Your task to perform on an android device: turn pop-ups on in chrome Image 0: 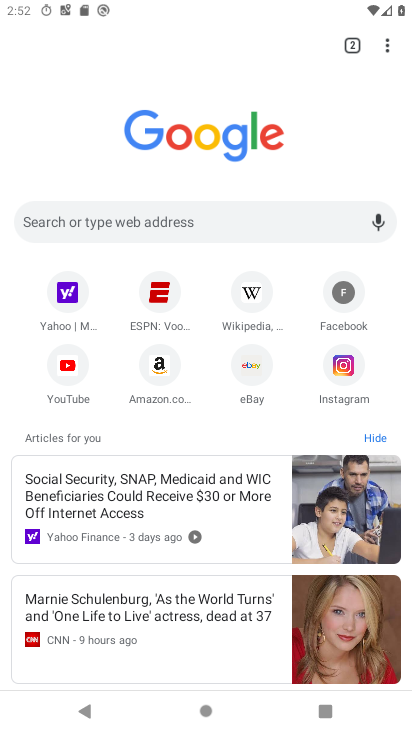
Step 0: press home button
Your task to perform on an android device: turn pop-ups on in chrome Image 1: 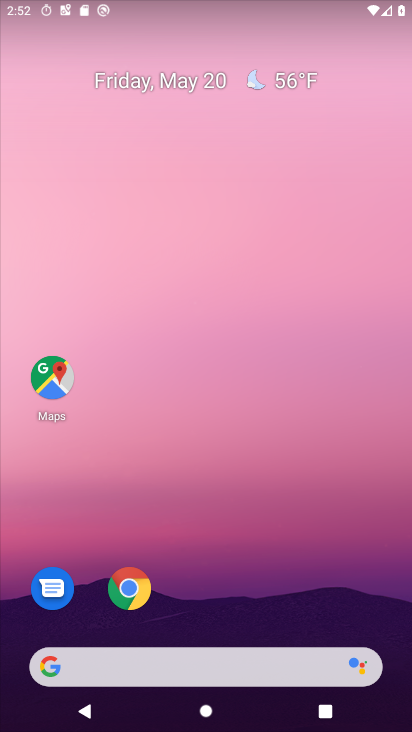
Step 1: click (124, 589)
Your task to perform on an android device: turn pop-ups on in chrome Image 2: 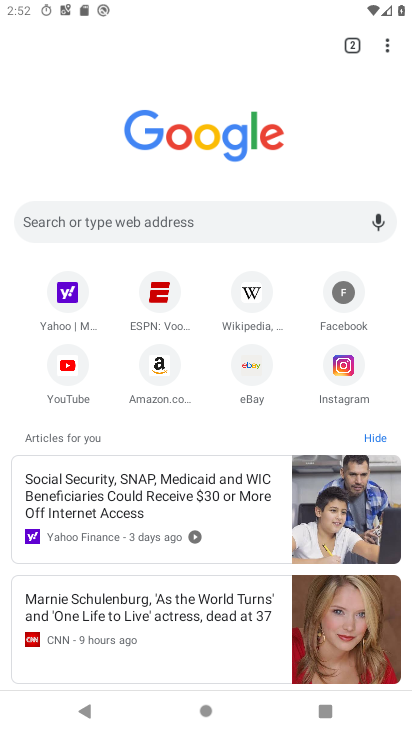
Step 2: click (383, 32)
Your task to perform on an android device: turn pop-ups on in chrome Image 3: 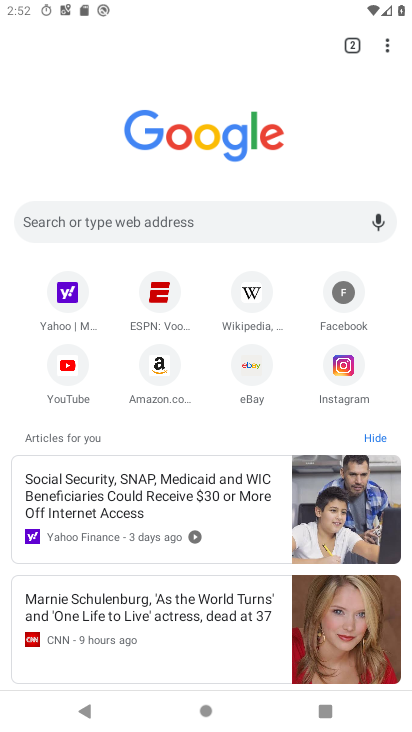
Step 3: click (384, 47)
Your task to perform on an android device: turn pop-ups on in chrome Image 4: 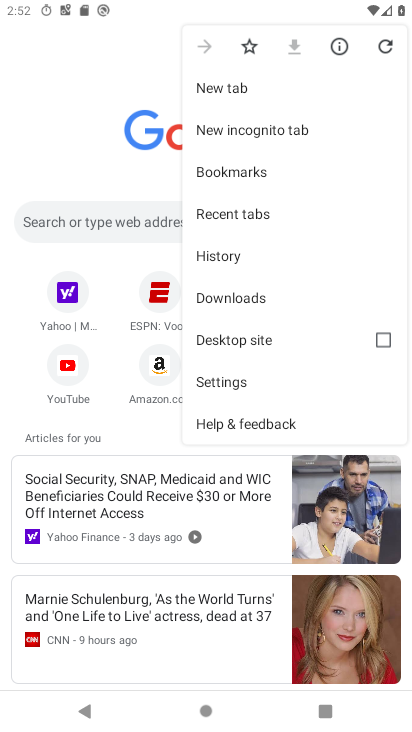
Step 4: click (199, 383)
Your task to perform on an android device: turn pop-ups on in chrome Image 5: 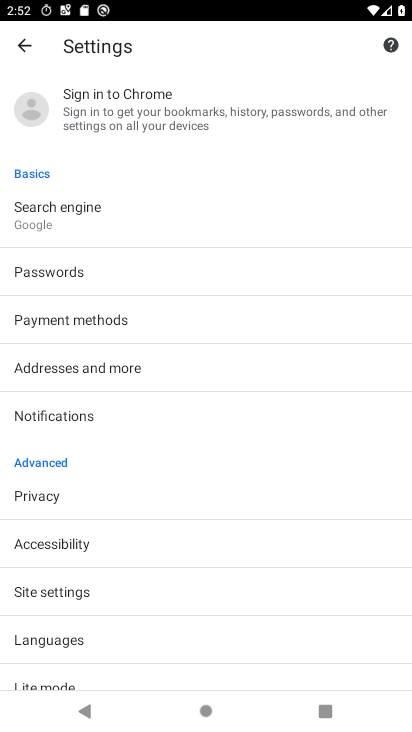
Step 5: click (73, 586)
Your task to perform on an android device: turn pop-ups on in chrome Image 6: 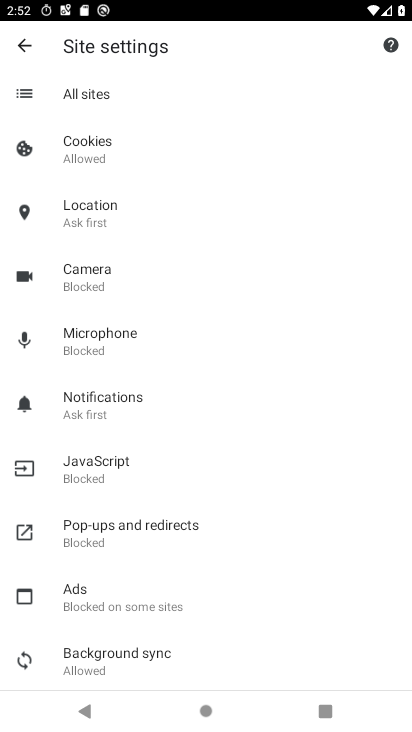
Step 6: click (77, 524)
Your task to perform on an android device: turn pop-ups on in chrome Image 7: 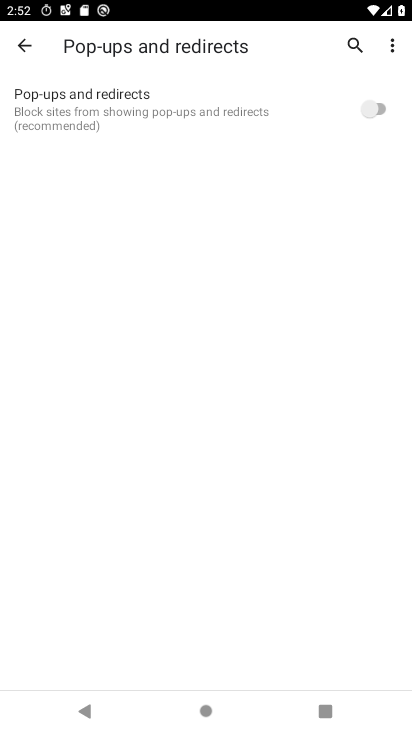
Step 7: click (376, 115)
Your task to perform on an android device: turn pop-ups on in chrome Image 8: 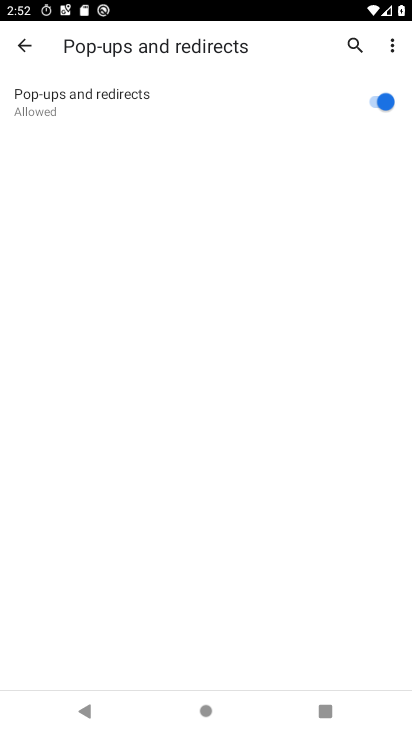
Step 8: task complete